Your task to perform on an android device: check battery use Image 0: 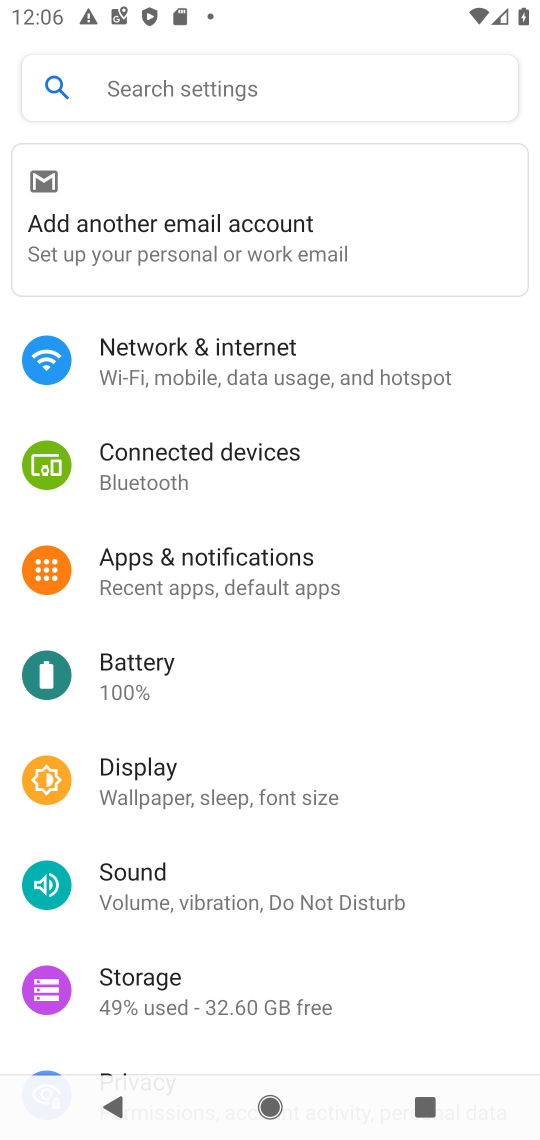
Step 0: click (109, 667)
Your task to perform on an android device: check battery use Image 1: 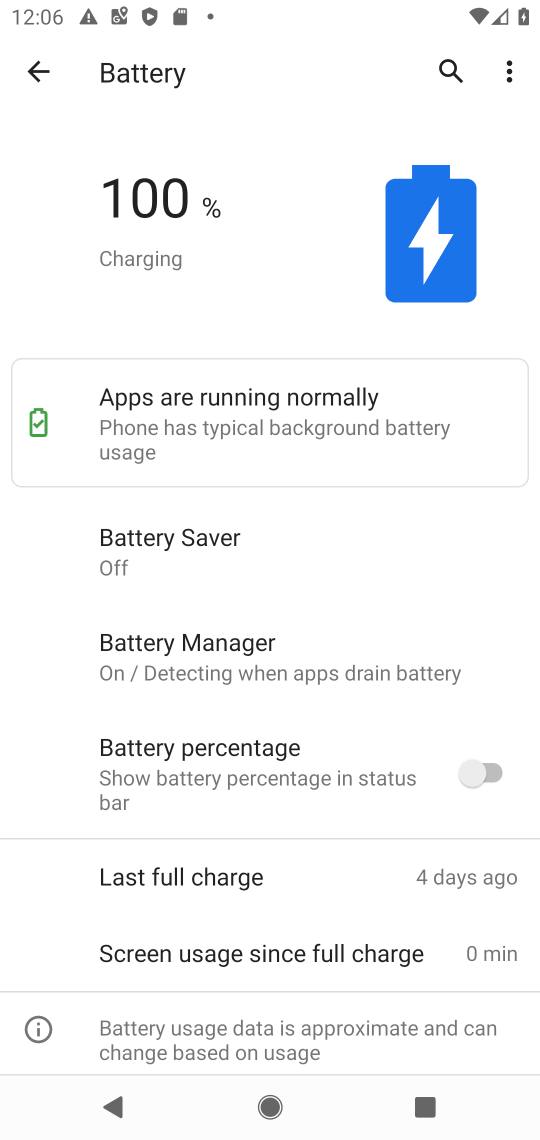
Step 1: click (506, 68)
Your task to perform on an android device: check battery use Image 2: 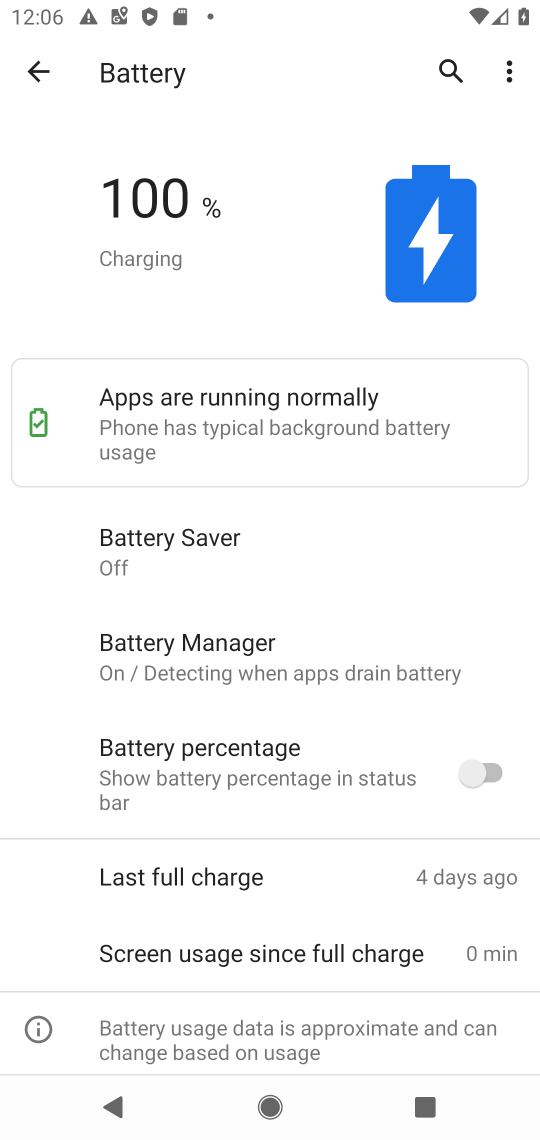
Step 2: click (506, 72)
Your task to perform on an android device: check battery use Image 3: 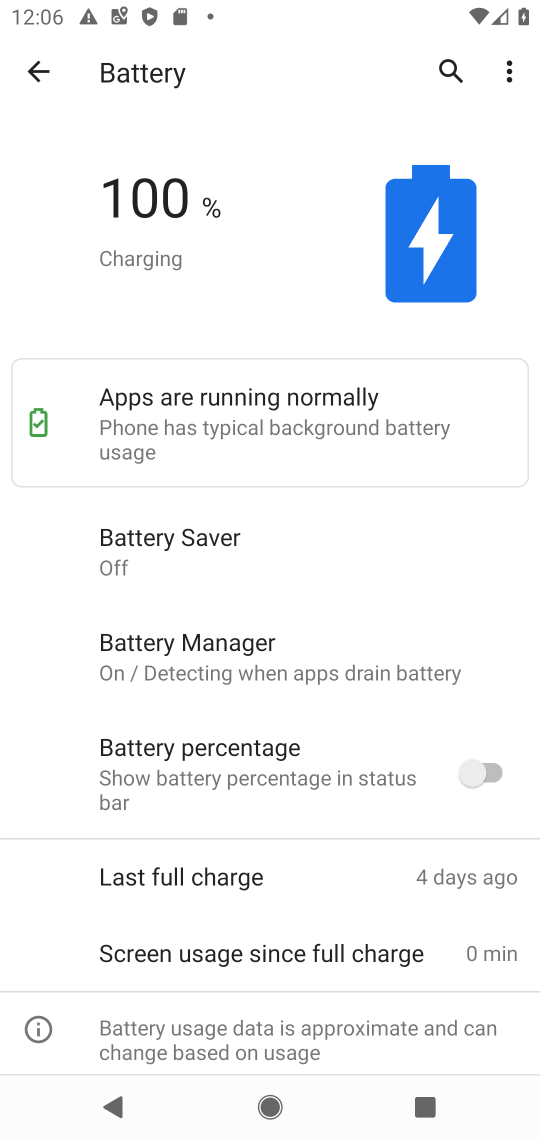
Step 3: click (509, 70)
Your task to perform on an android device: check battery use Image 4: 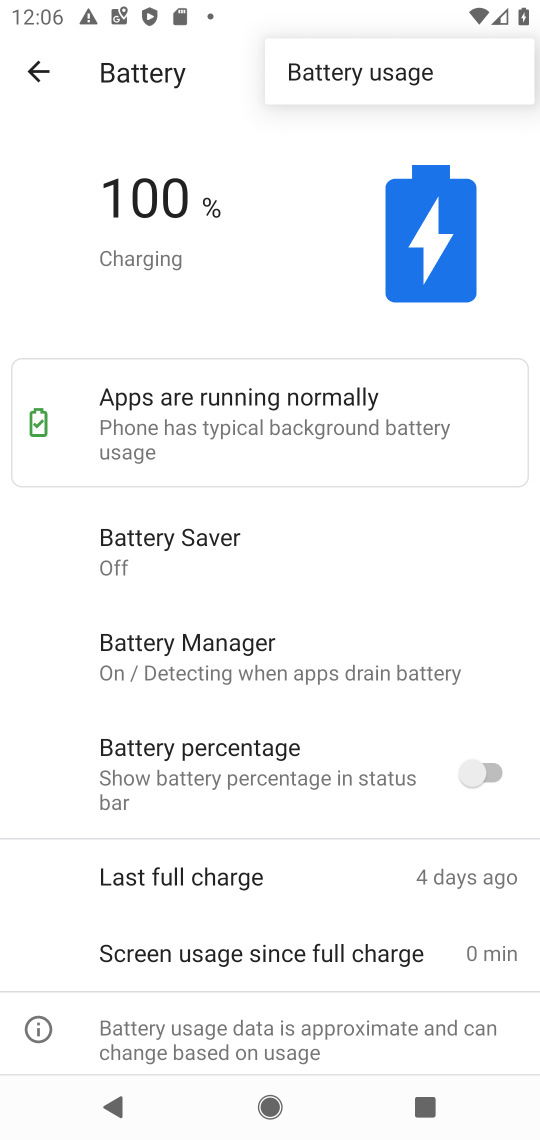
Step 4: click (396, 67)
Your task to perform on an android device: check battery use Image 5: 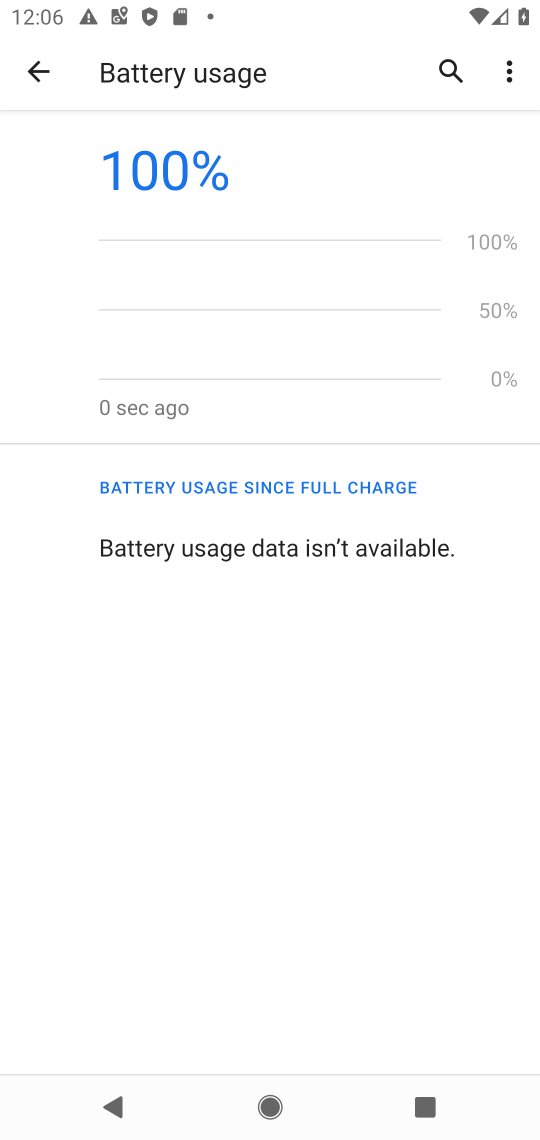
Step 5: task complete